Your task to perform on an android device: toggle translation in the chrome app Image 0: 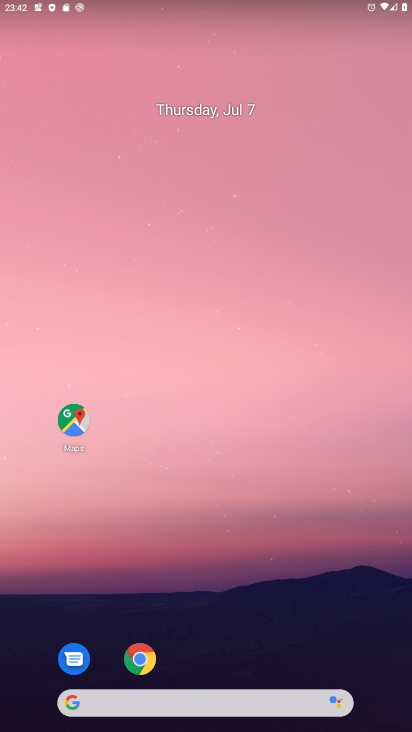
Step 0: click (136, 664)
Your task to perform on an android device: toggle translation in the chrome app Image 1: 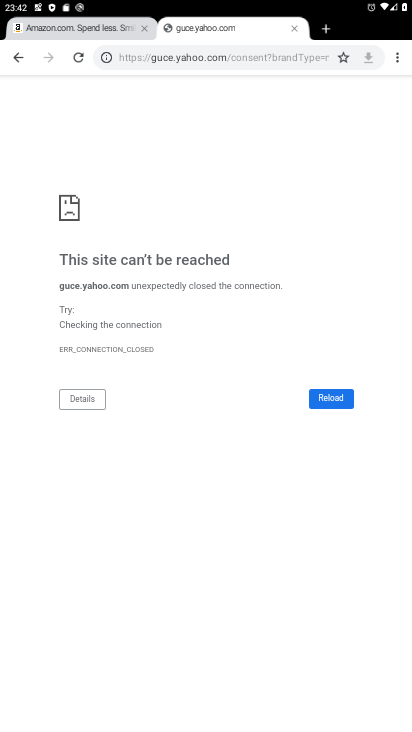
Step 1: click (398, 54)
Your task to perform on an android device: toggle translation in the chrome app Image 2: 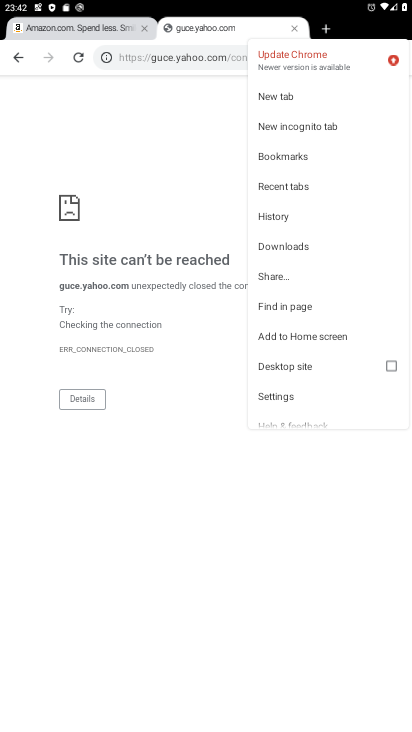
Step 2: click (301, 394)
Your task to perform on an android device: toggle translation in the chrome app Image 3: 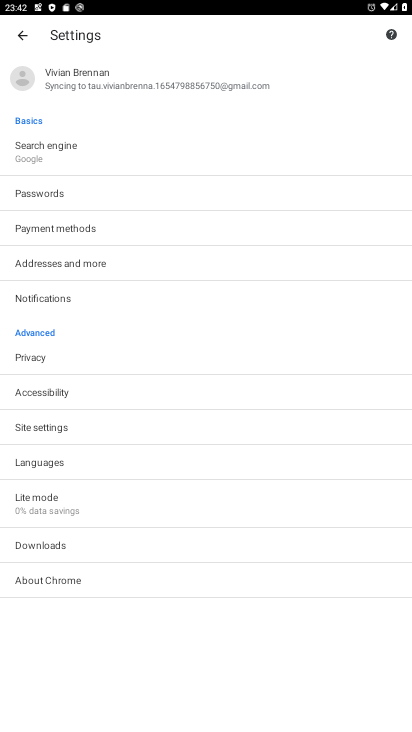
Step 3: click (159, 458)
Your task to perform on an android device: toggle translation in the chrome app Image 4: 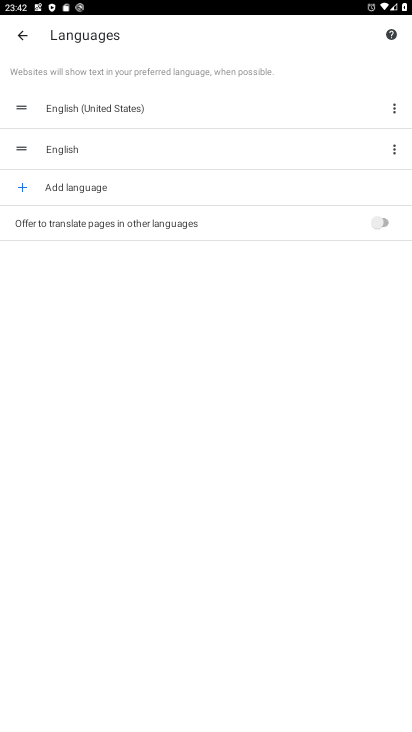
Step 4: click (378, 222)
Your task to perform on an android device: toggle translation in the chrome app Image 5: 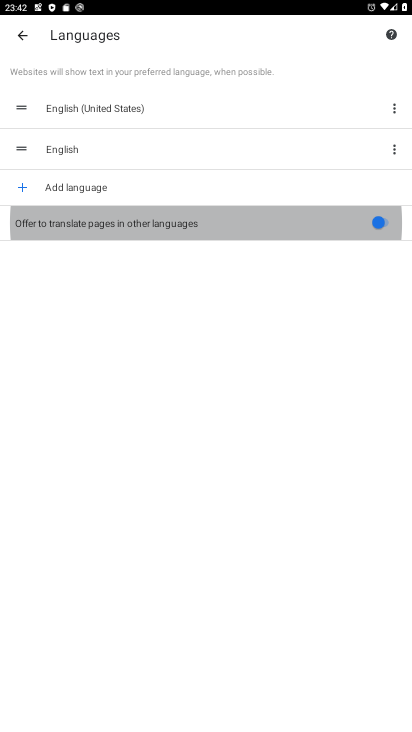
Step 5: click (378, 222)
Your task to perform on an android device: toggle translation in the chrome app Image 6: 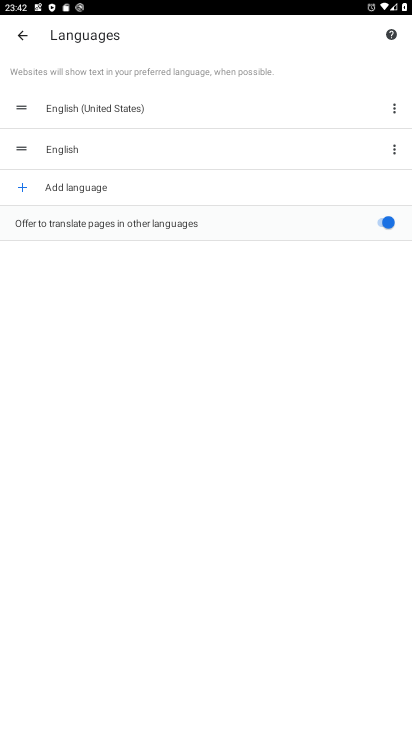
Step 6: click (378, 222)
Your task to perform on an android device: toggle translation in the chrome app Image 7: 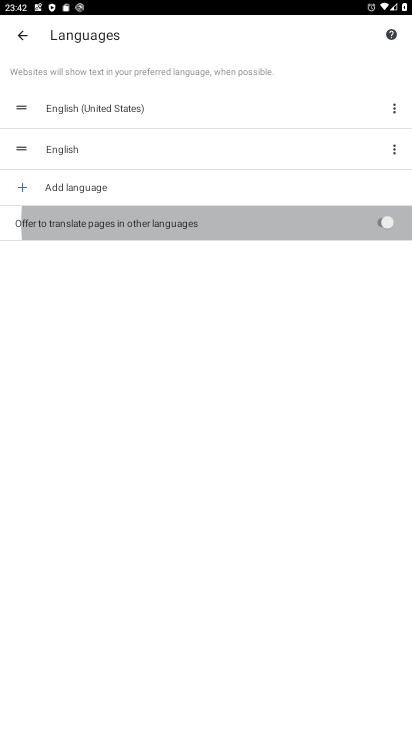
Step 7: click (378, 222)
Your task to perform on an android device: toggle translation in the chrome app Image 8: 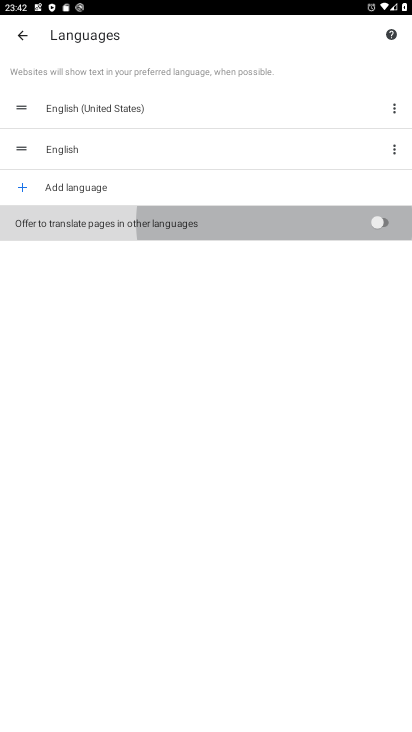
Step 8: click (378, 222)
Your task to perform on an android device: toggle translation in the chrome app Image 9: 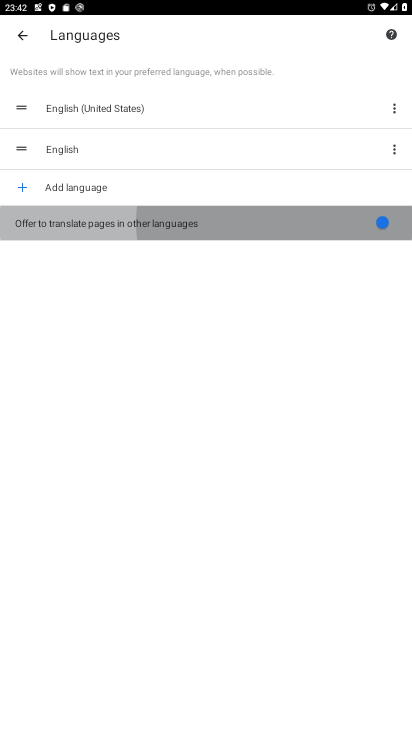
Step 9: click (378, 222)
Your task to perform on an android device: toggle translation in the chrome app Image 10: 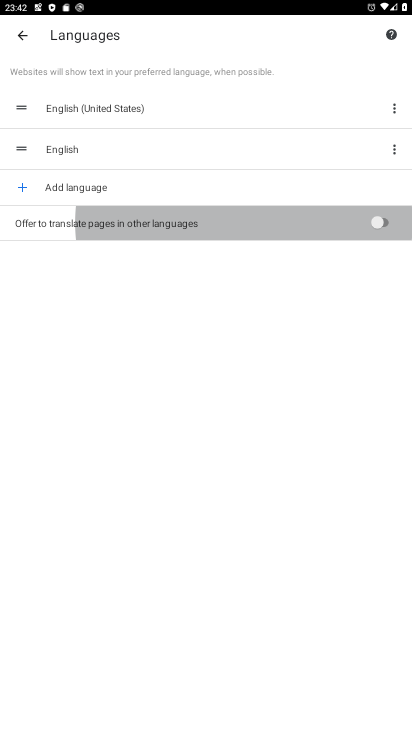
Step 10: click (378, 222)
Your task to perform on an android device: toggle translation in the chrome app Image 11: 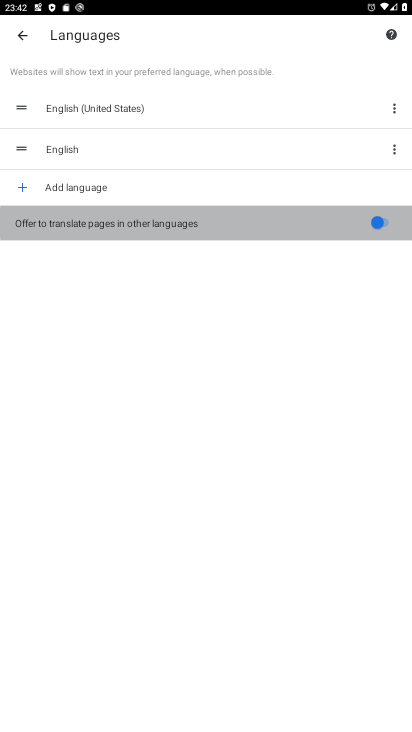
Step 11: click (378, 222)
Your task to perform on an android device: toggle translation in the chrome app Image 12: 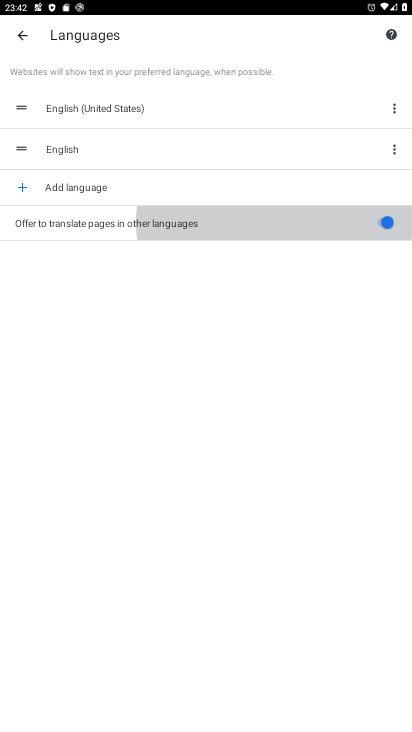
Step 12: click (378, 222)
Your task to perform on an android device: toggle translation in the chrome app Image 13: 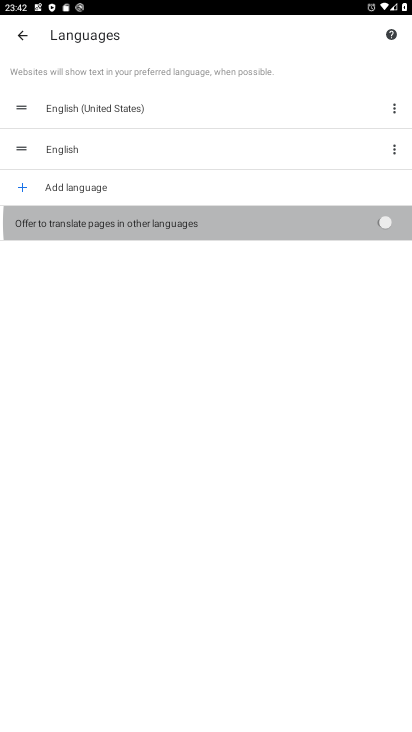
Step 13: click (378, 222)
Your task to perform on an android device: toggle translation in the chrome app Image 14: 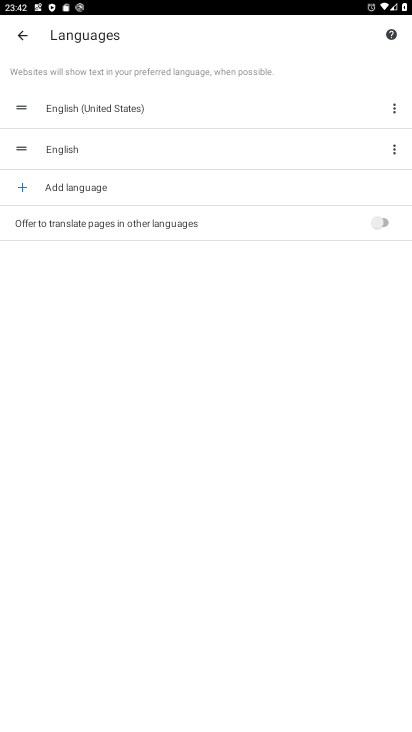
Step 14: task complete